Your task to perform on an android device: turn on location history Image 0: 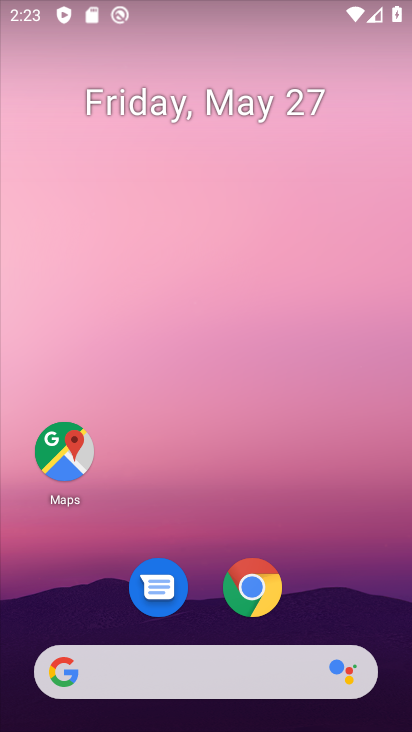
Step 0: press home button
Your task to perform on an android device: turn on location history Image 1: 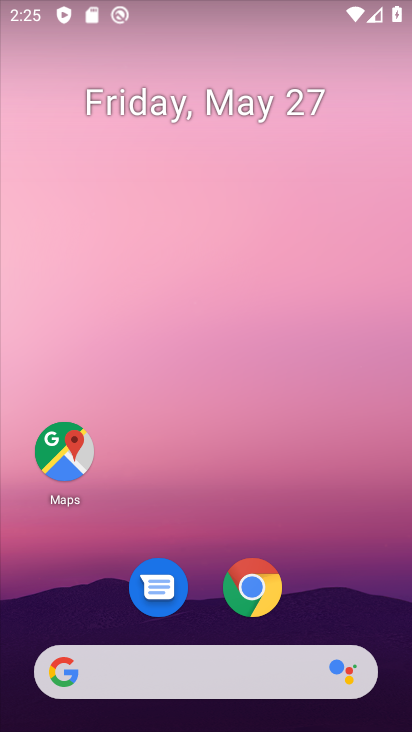
Step 1: drag from (326, 615) to (295, 205)
Your task to perform on an android device: turn on location history Image 2: 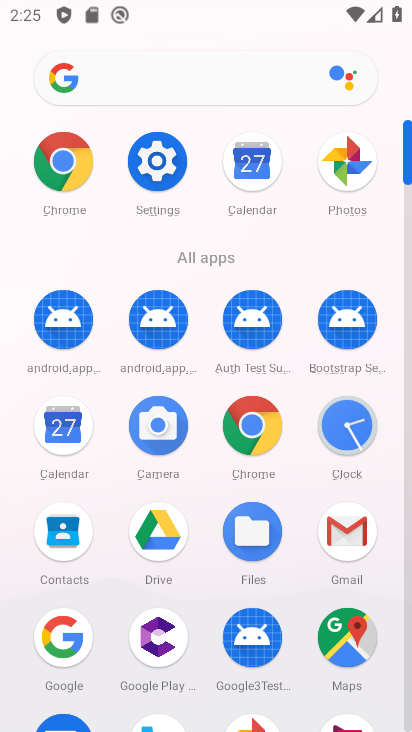
Step 2: click (162, 165)
Your task to perform on an android device: turn on location history Image 3: 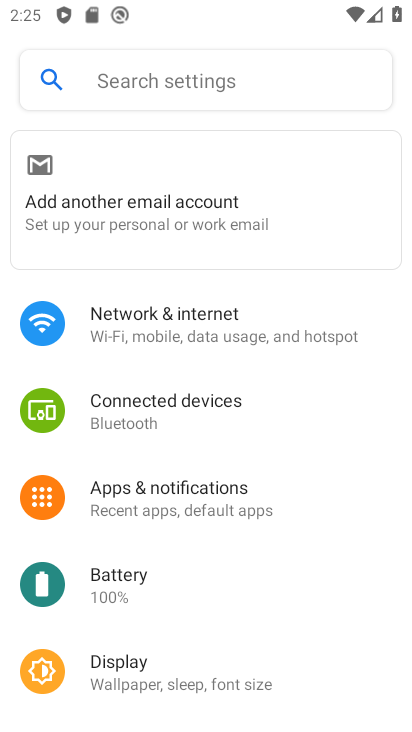
Step 3: drag from (209, 619) to (222, 255)
Your task to perform on an android device: turn on location history Image 4: 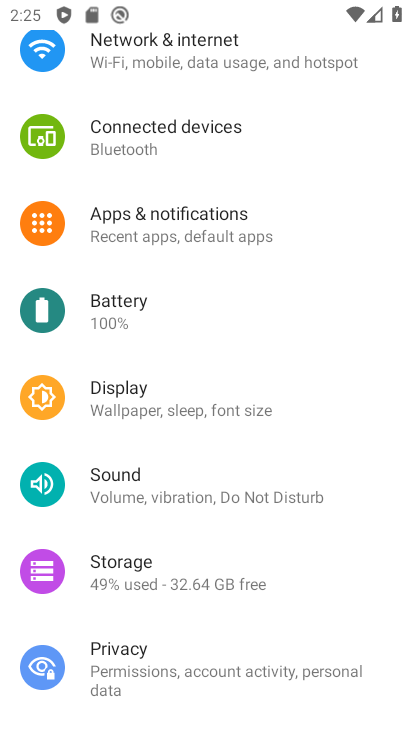
Step 4: drag from (339, 543) to (362, 200)
Your task to perform on an android device: turn on location history Image 5: 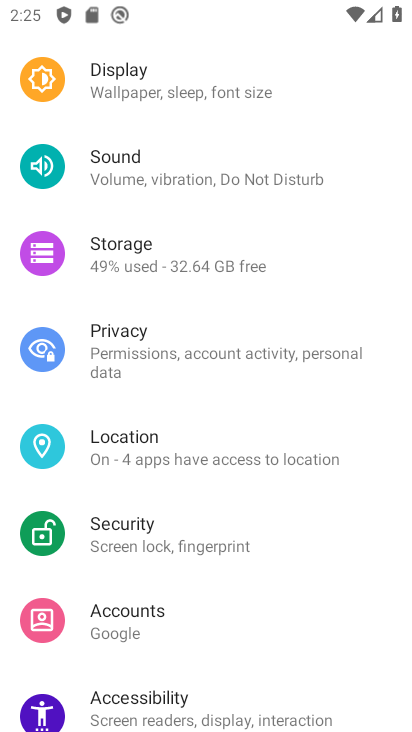
Step 5: click (93, 449)
Your task to perform on an android device: turn on location history Image 6: 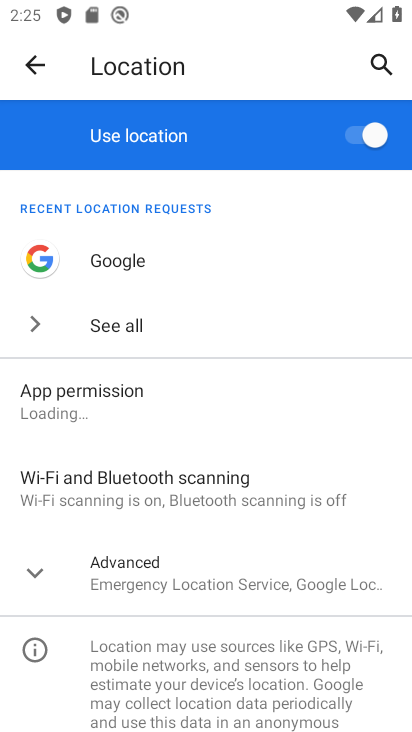
Step 6: click (106, 565)
Your task to perform on an android device: turn on location history Image 7: 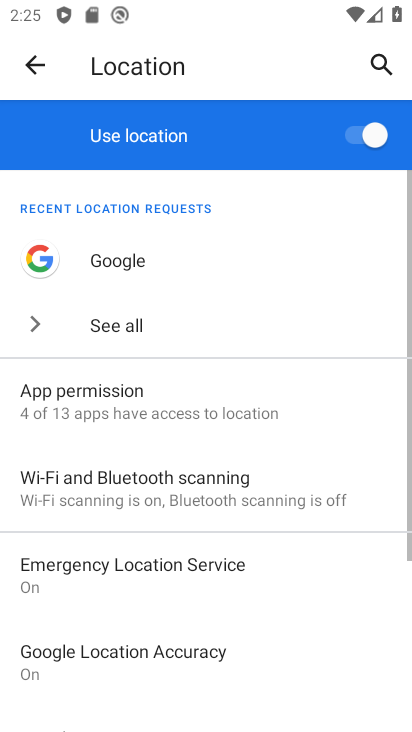
Step 7: drag from (174, 598) to (209, 351)
Your task to perform on an android device: turn on location history Image 8: 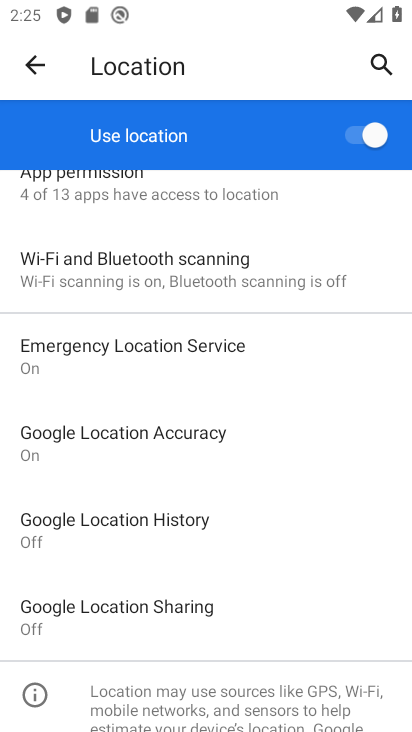
Step 8: click (146, 527)
Your task to perform on an android device: turn on location history Image 9: 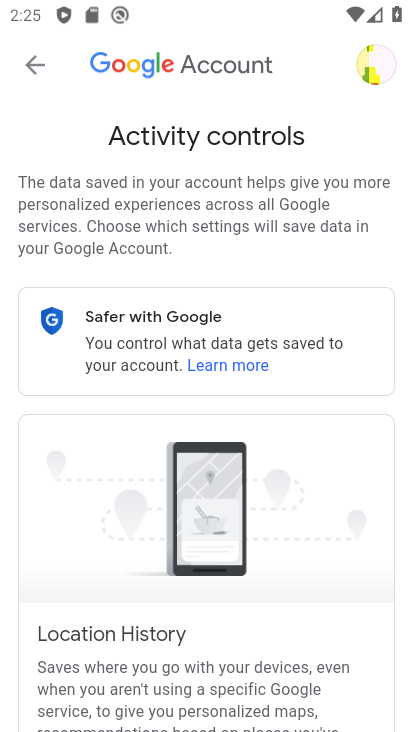
Step 9: drag from (327, 528) to (355, 76)
Your task to perform on an android device: turn on location history Image 10: 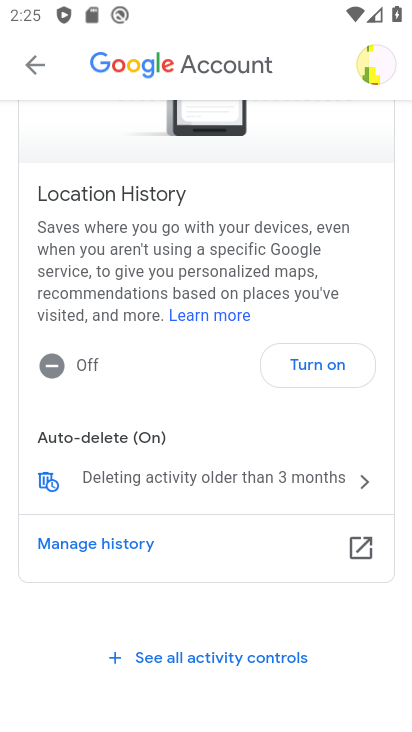
Step 10: click (305, 366)
Your task to perform on an android device: turn on location history Image 11: 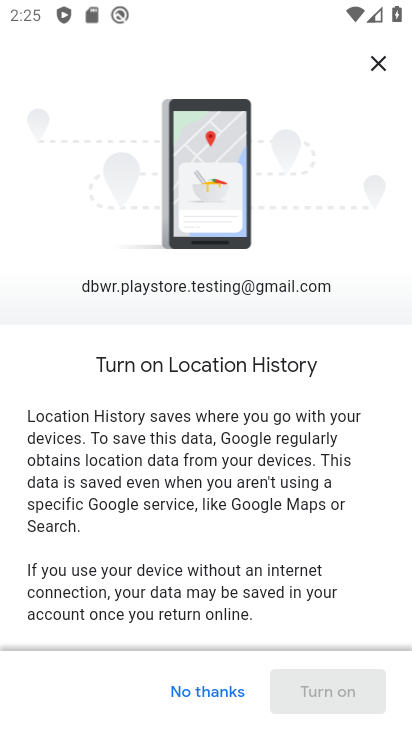
Step 11: task complete